Your task to perform on an android device: stop showing notifications on the lock screen Image 0: 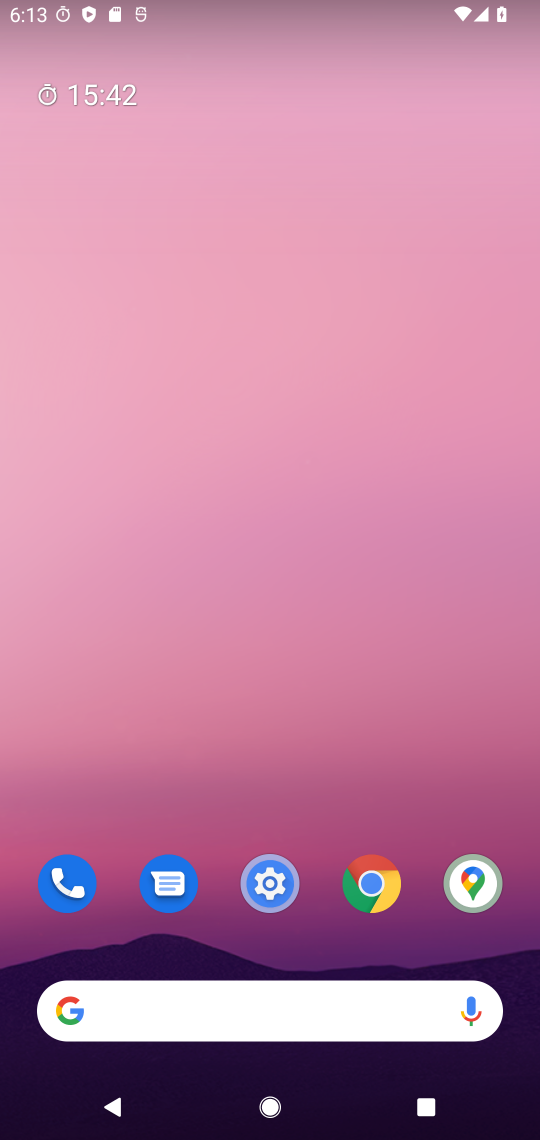
Step 0: click (274, 871)
Your task to perform on an android device: stop showing notifications on the lock screen Image 1: 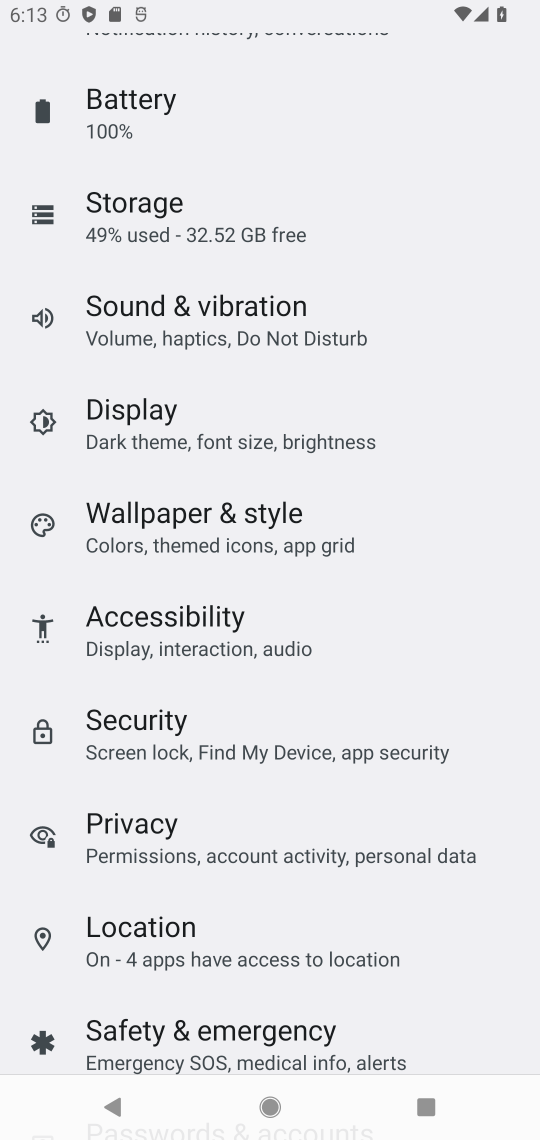
Step 1: drag from (247, 393) to (249, 847)
Your task to perform on an android device: stop showing notifications on the lock screen Image 2: 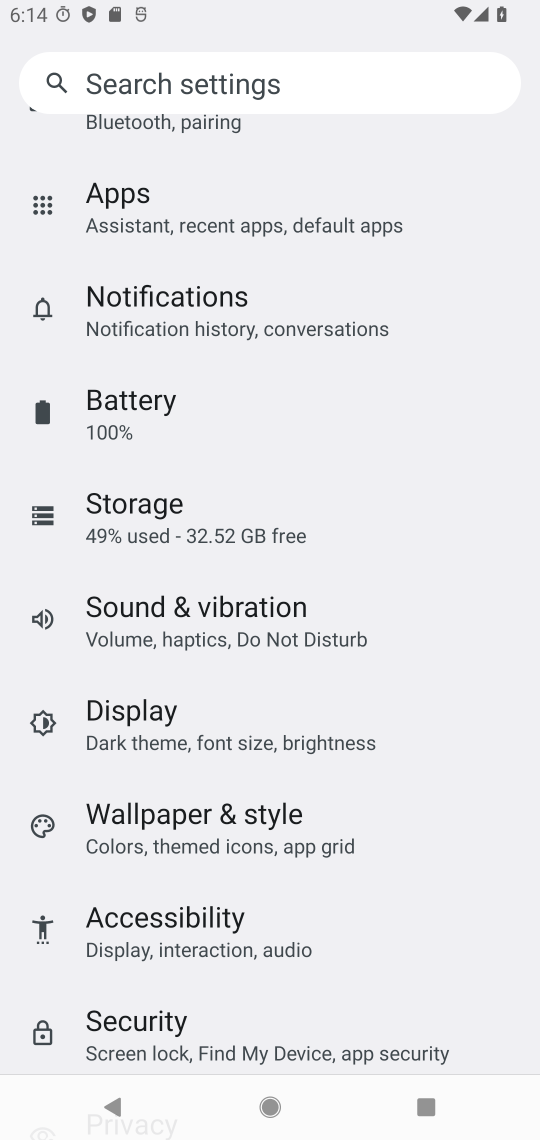
Step 2: click (242, 320)
Your task to perform on an android device: stop showing notifications on the lock screen Image 3: 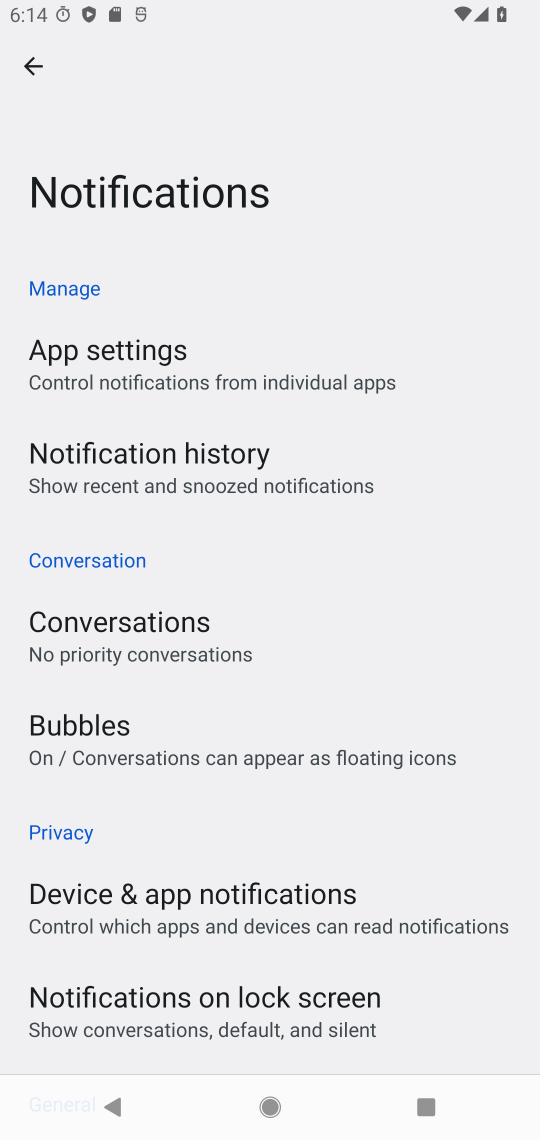
Step 3: drag from (263, 866) to (268, 434)
Your task to perform on an android device: stop showing notifications on the lock screen Image 4: 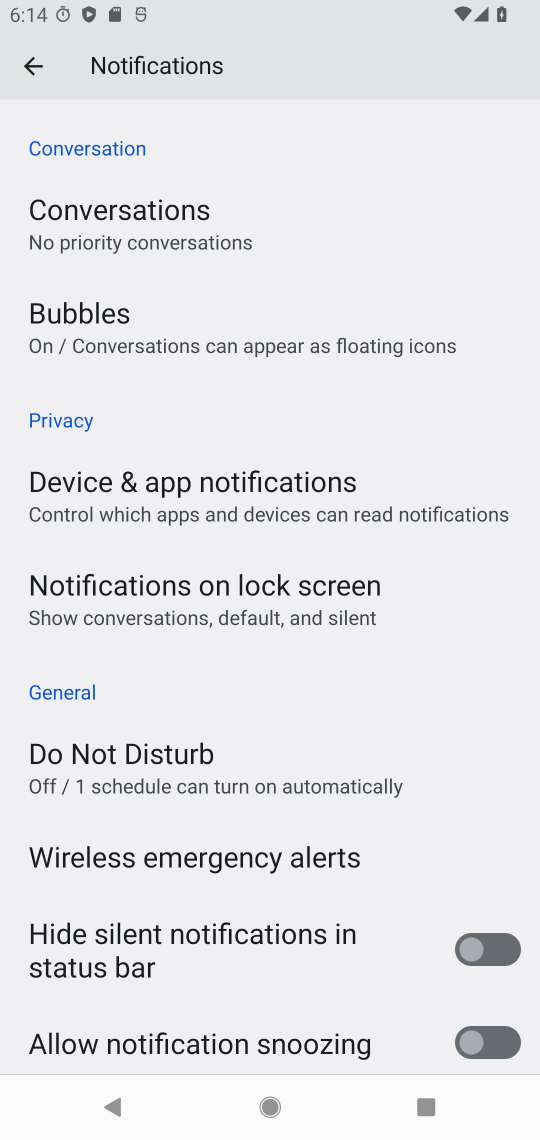
Step 4: click (268, 609)
Your task to perform on an android device: stop showing notifications on the lock screen Image 5: 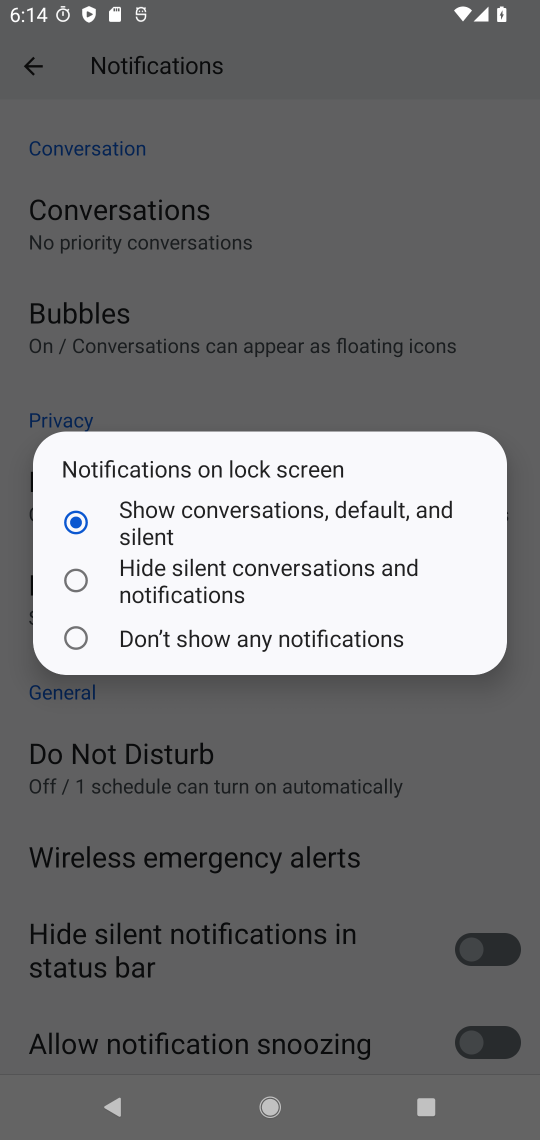
Step 5: click (162, 647)
Your task to perform on an android device: stop showing notifications on the lock screen Image 6: 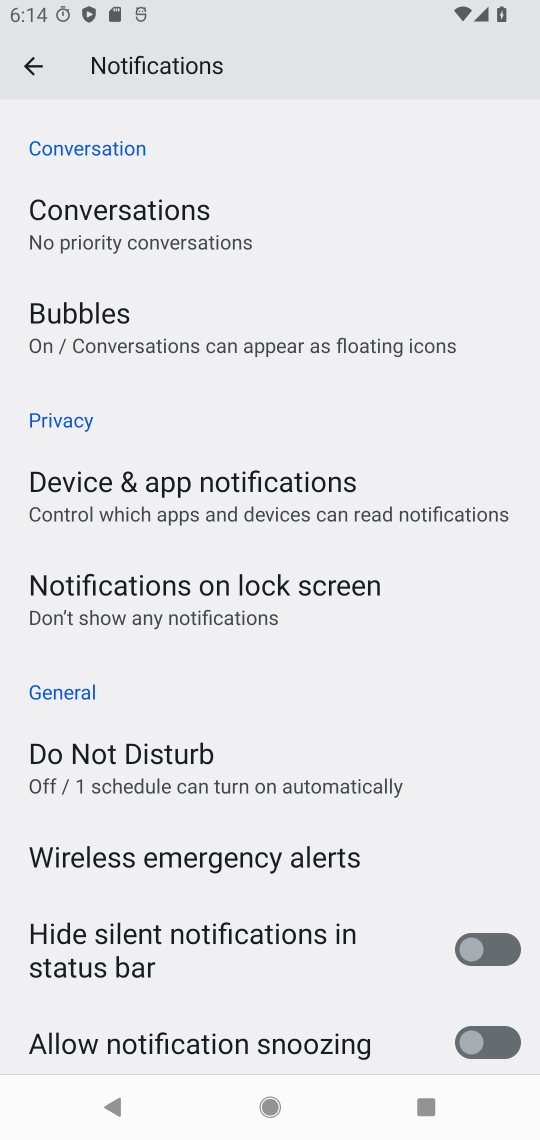
Step 6: task complete